Your task to perform on an android device: Go to wifi settings Image 0: 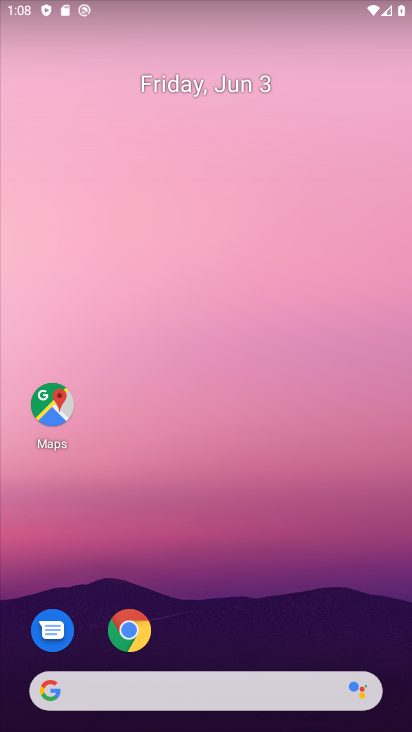
Step 0: drag from (214, 729) to (219, 139)
Your task to perform on an android device: Go to wifi settings Image 1: 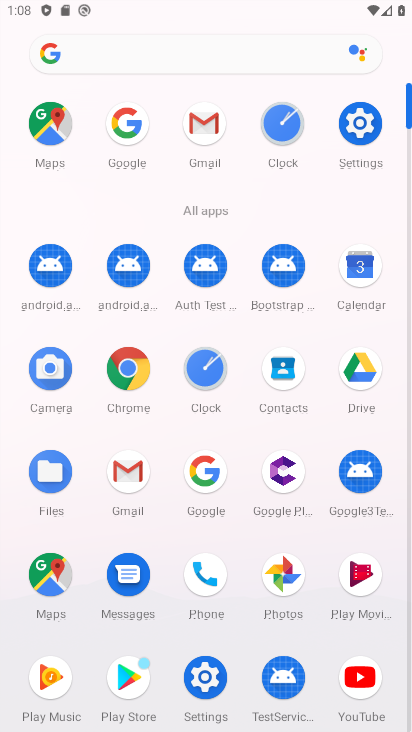
Step 1: click (360, 123)
Your task to perform on an android device: Go to wifi settings Image 2: 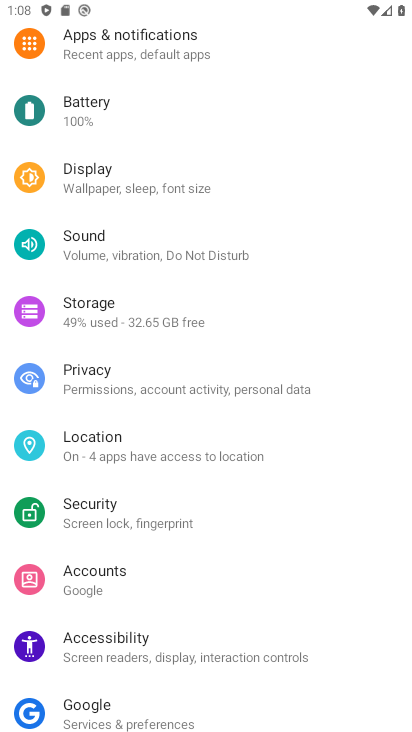
Step 2: drag from (296, 83) to (287, 527)
Your task to perform on an android device: Go to wifi settings Image 3: 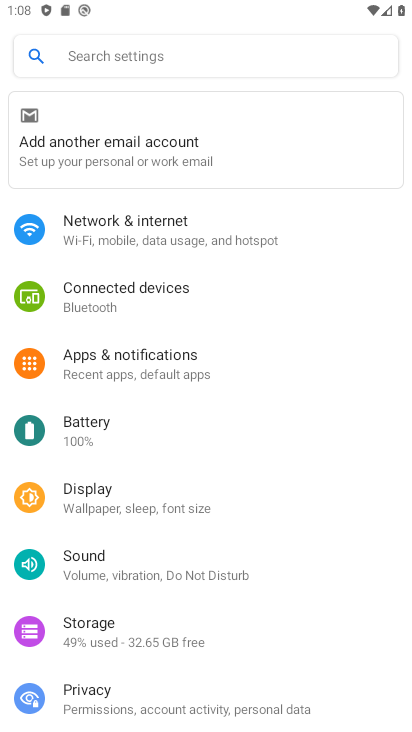
Step 3: click (113, 237)
Your task to perform on an android device: Go to wifi settings Image 4: 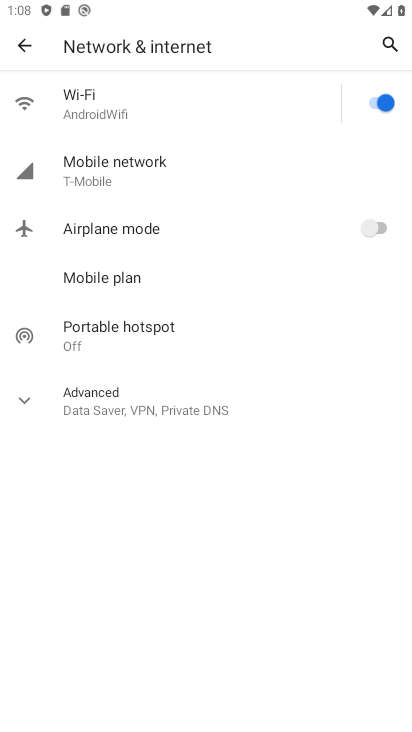
Step 4: click (84, 106)
Your task to perform on an android device: Go to wifi settings Image 5: 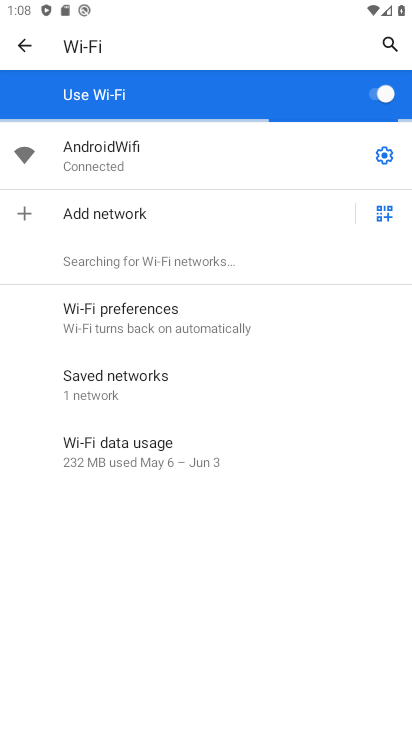
Step 5: task complete